Your task to perform on an android device: turn on data saver in the chrome app Image 0: 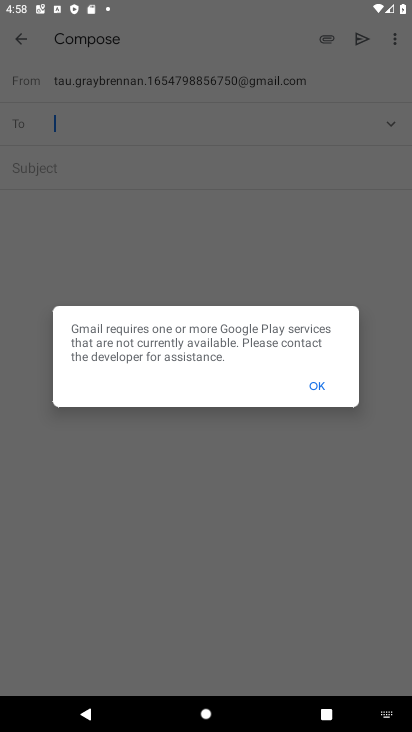
Step 0: press home button
Your task to perform on an android device: turn on data saver in the chrome app Image 1: 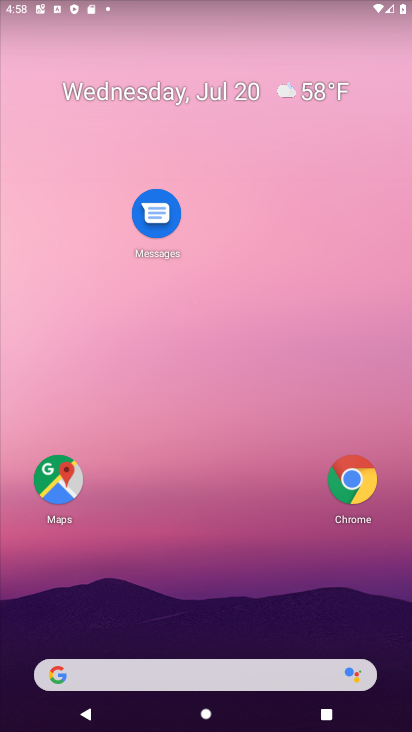
Step 1: click (351, 490)
Your task to perform on an android device: turn on data saver in the chrome app Image 2: 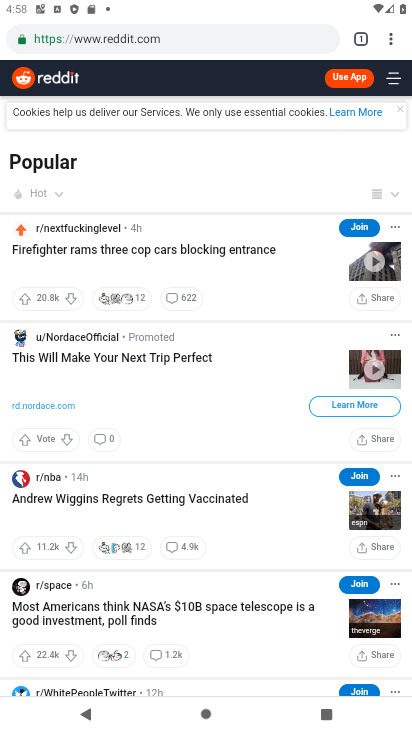
Step 2: click (386, 36)
Your task to perform on an android device: turn on data saver in the chrome app Image 3: 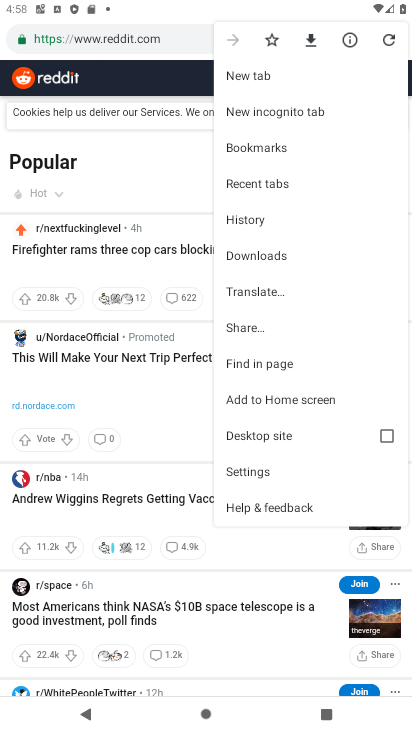
Step 3: click (242, 476)
Your task to perform on an android device: turn on data saver in the chrome app Image 4: 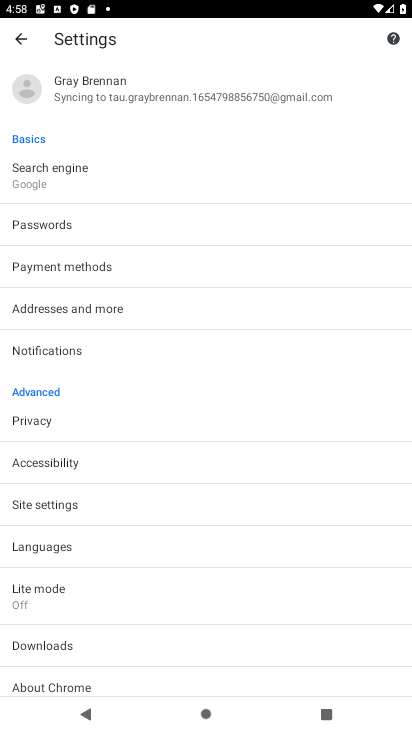
Step 4: click (36, 599)
Your task to perform on an android device: turn on data saver in the chrome app Image 5: 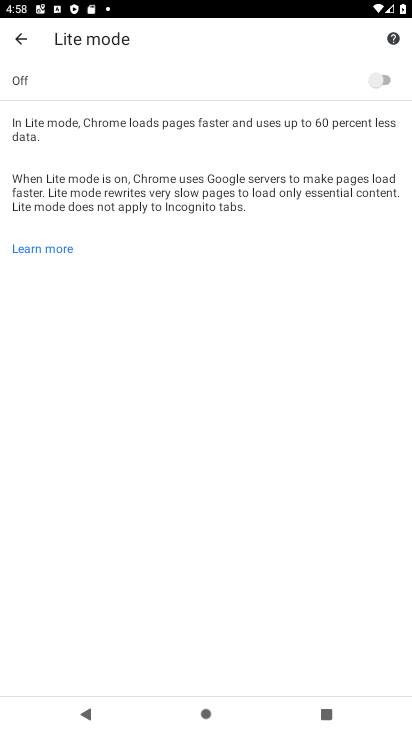
Step 5: click (379, 85)
Your task to perform on an android device: turn on data saver in the chrome app Image 6: 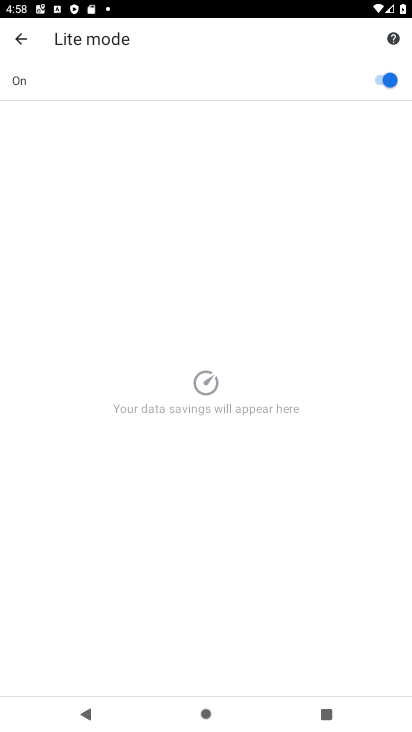
Step 6: task complete